Your task to perform on an android device: Open sound settings Image 0: 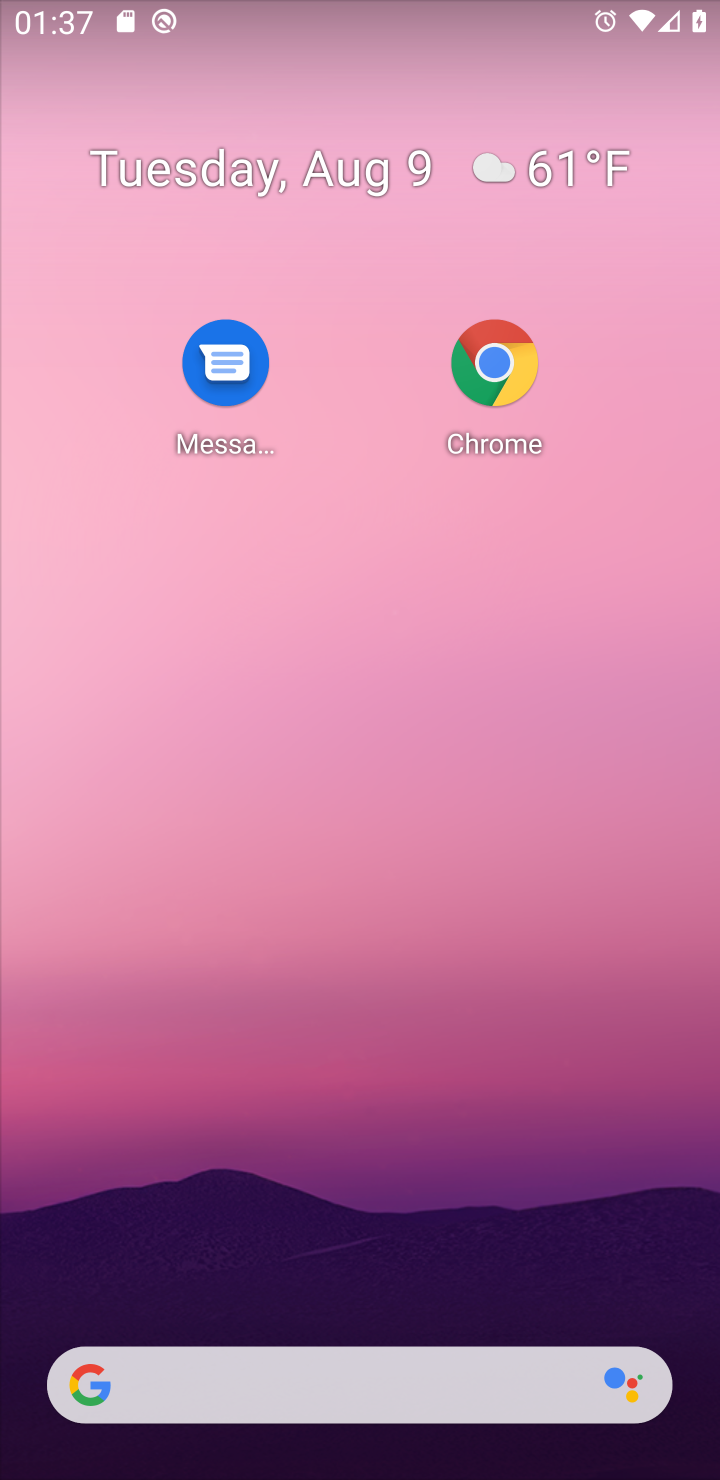
Step 0: drag from (304, 1338) to (515, 349)
Your task to perform on an android device: Open sound settings Image 1: 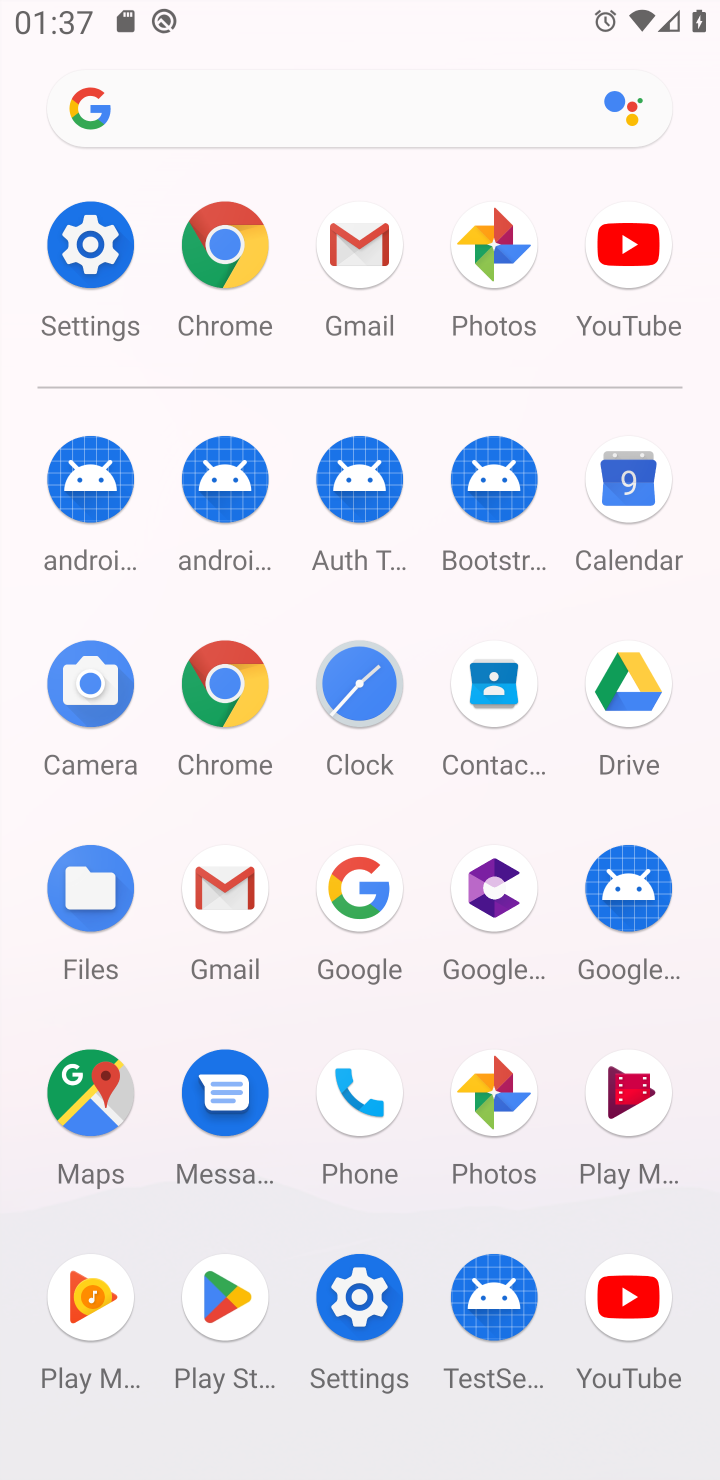
Step 1: click (96, 211)
Your task to perform on an android device: Open sound settings Image 2: 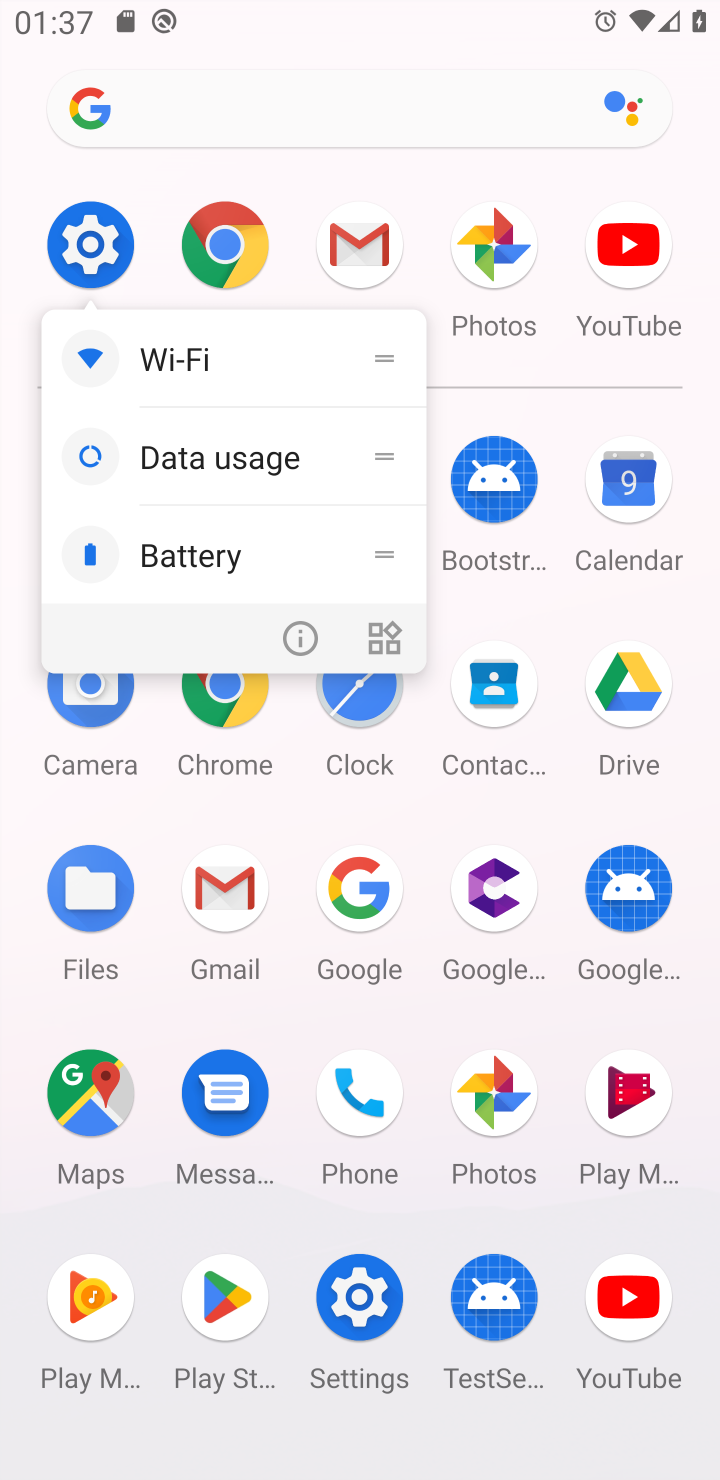
Step 2: click (98, 240)
Your task to perform on an android device: Open sound settings Image 3: 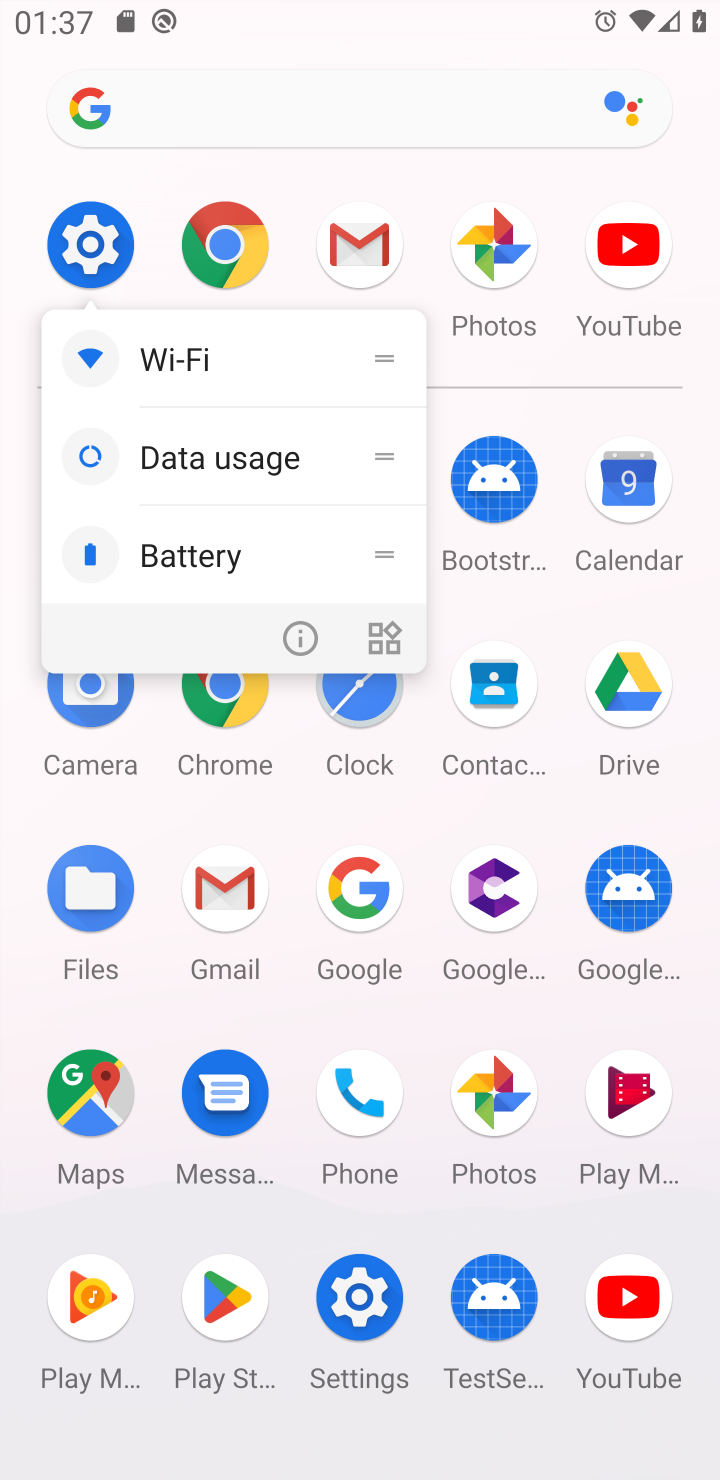
Step 3: click (98, 240)
Your task to perform on an android device: Open sound settings Image 4: 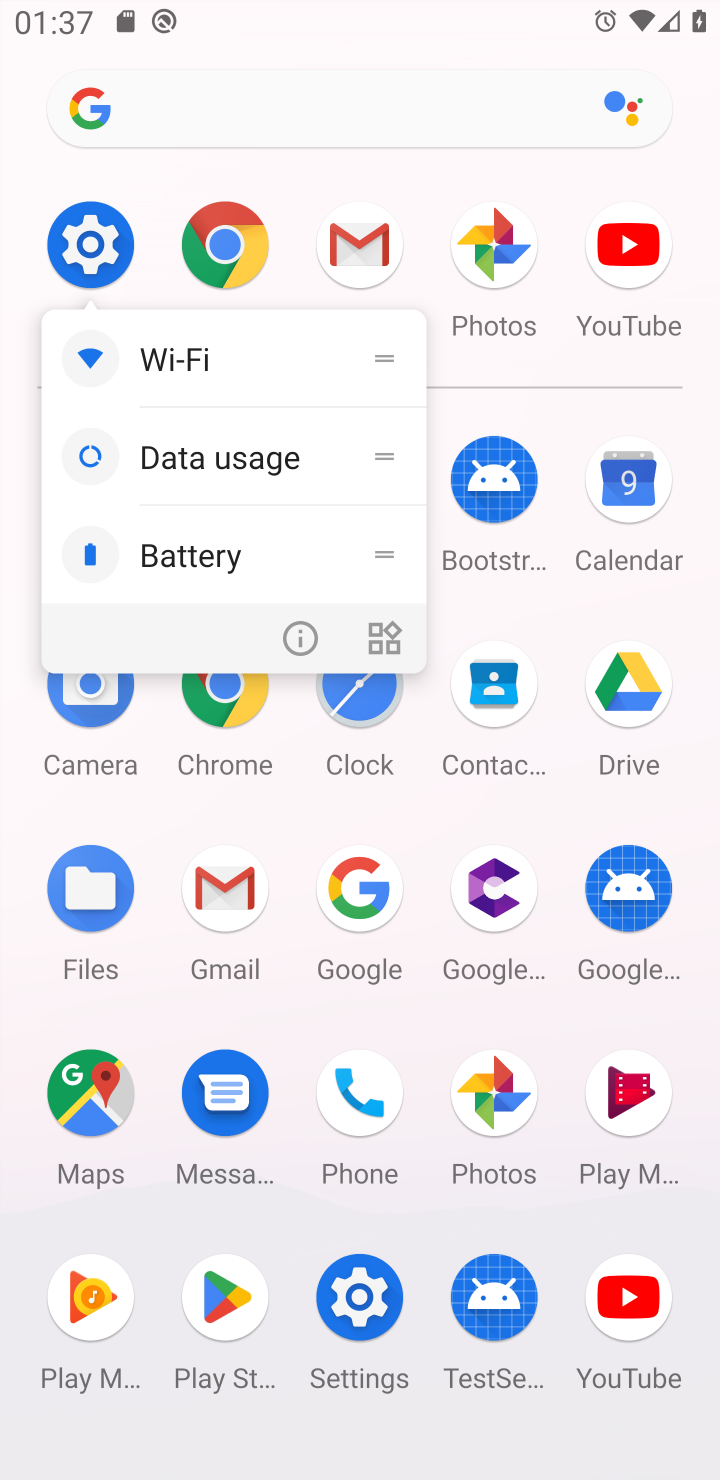
Step 4: click (98, 240)
Your task to perform on an android device: Open sound settings Image 5: 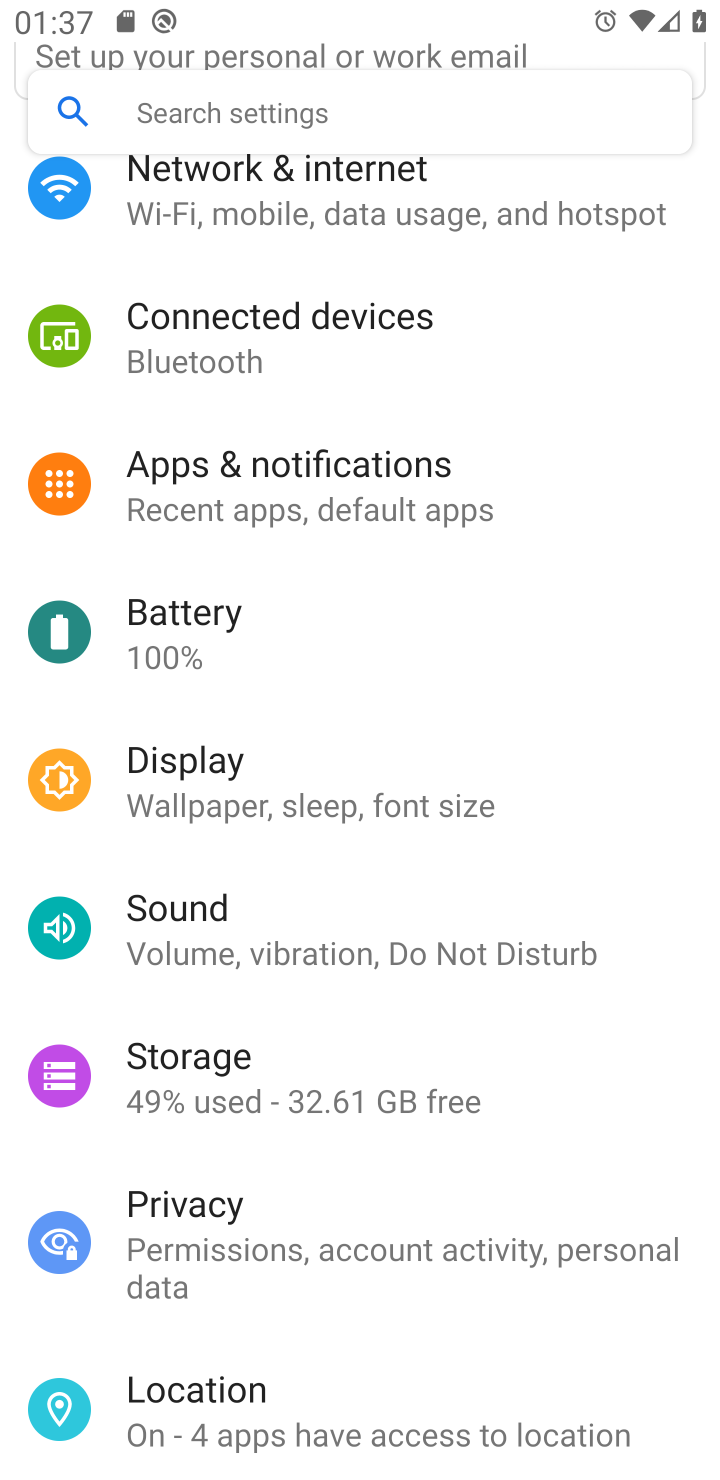
Step 5: click (206, 935)
Your task to perform on an android device: Open sound settings Image 6: 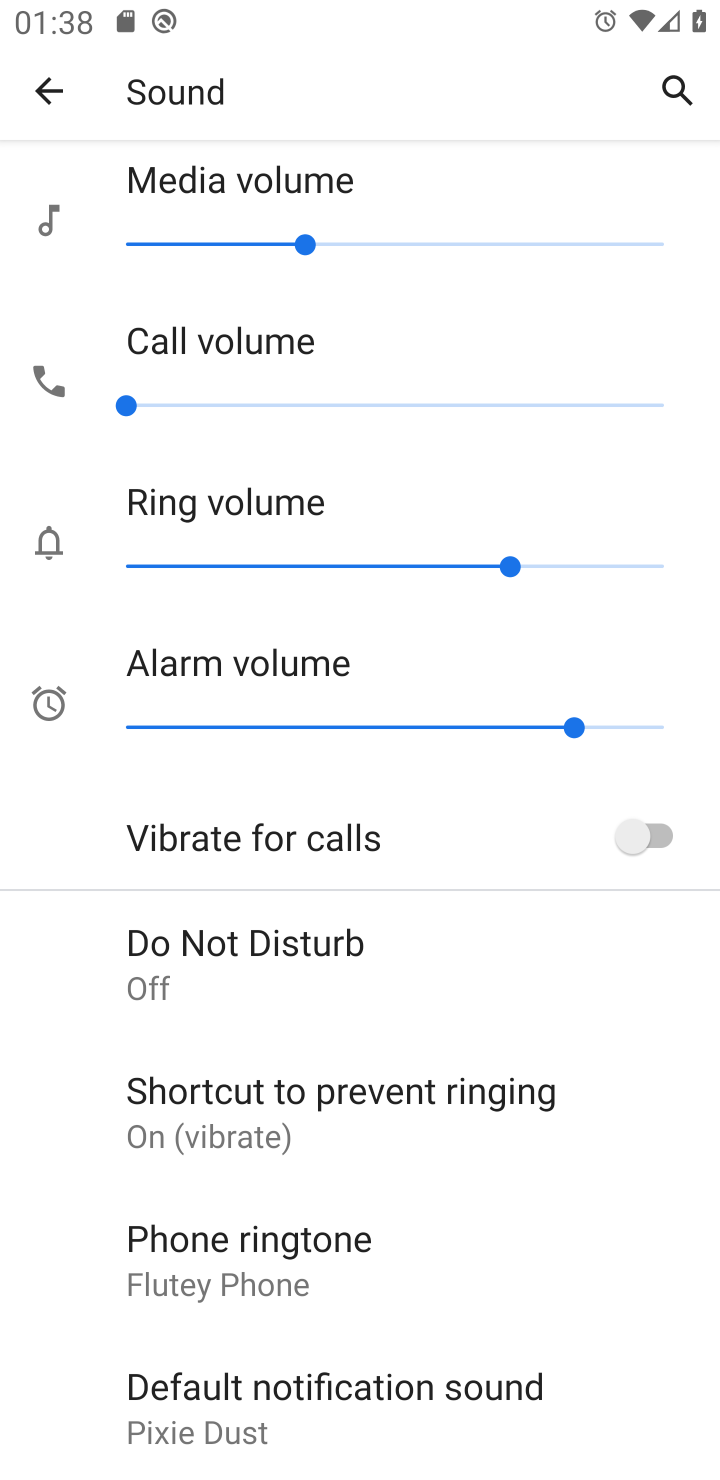
Step 6: task complete